Your task to perform on an android device: Open calendar and show me the first week of next month Image 0: 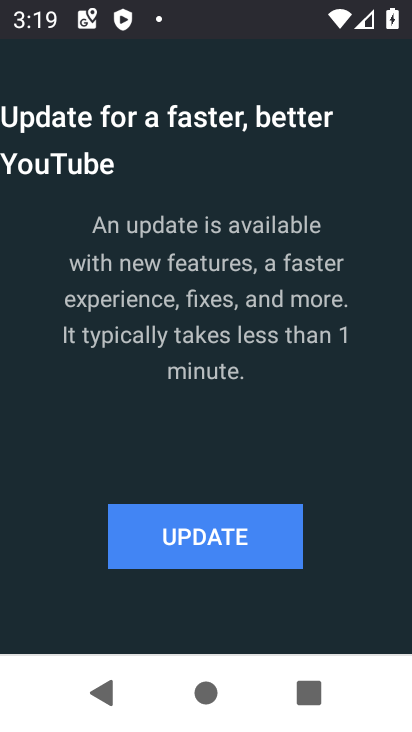
Step 0: press home button
Your task to perform on an android device: Open calendar and show me the first week of next month Image 1: 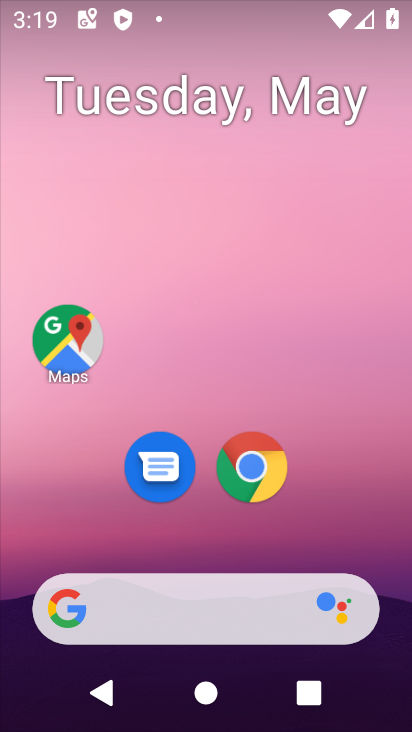
Step 1: press home button
Your task to perform on an android device: Open calendar and show me the first week of next month Image 2: 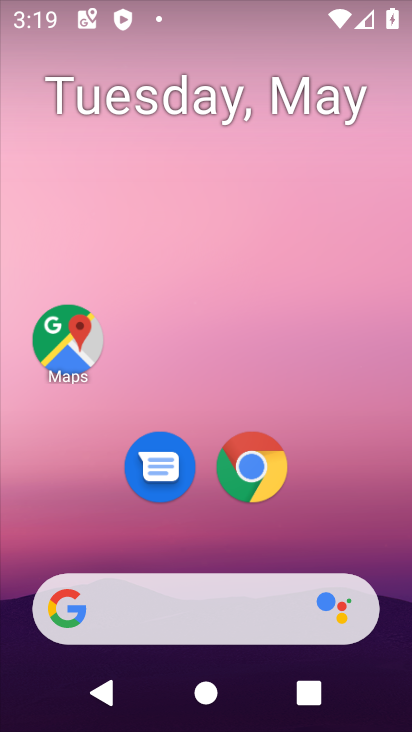
Step 2: drag from (361, 536) to (311, 46)
Your task to perform on an android device: Open calendar and show me the first week of next month Image 3: 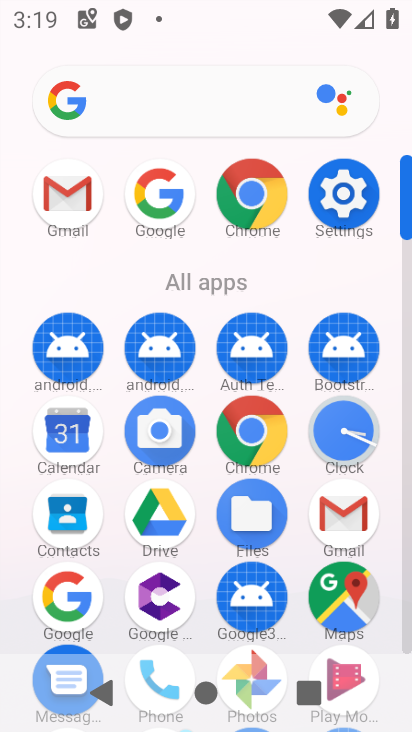
Step 3: click (71, 444)
Your task to perform on an android device: Open calendar and show me the first week of next month Image 4: 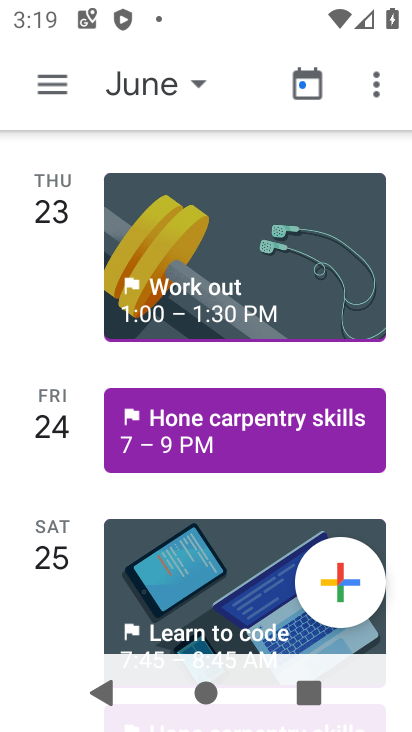
Step 4: click (62, 88)
Your task to perform on an android device: Open calendar and show me the first week of next month Image 5: 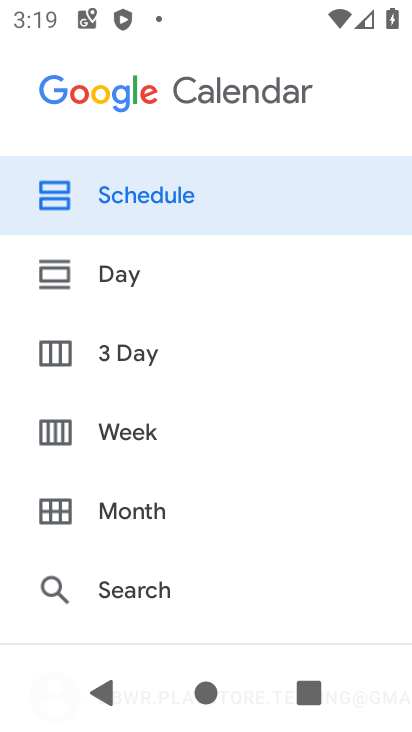
Step 5: click (125, 509)
Your task to perform on an android device: Open calendar and show me the first week of next month Image 6: 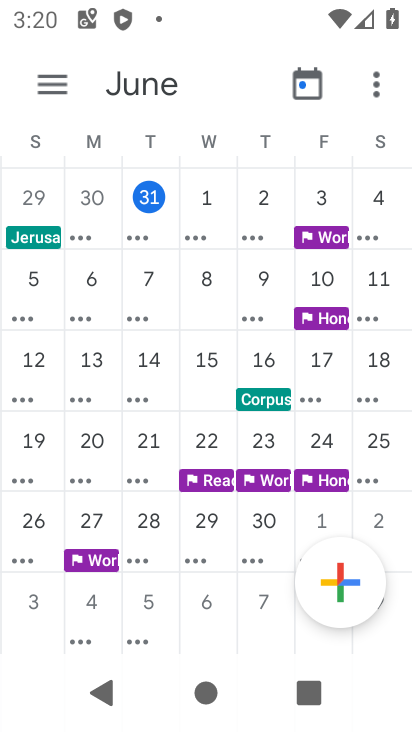
Step 6: click (206, 202)
Your task to perform on an android device: Open calendar and show me the first week of next month Image 7: 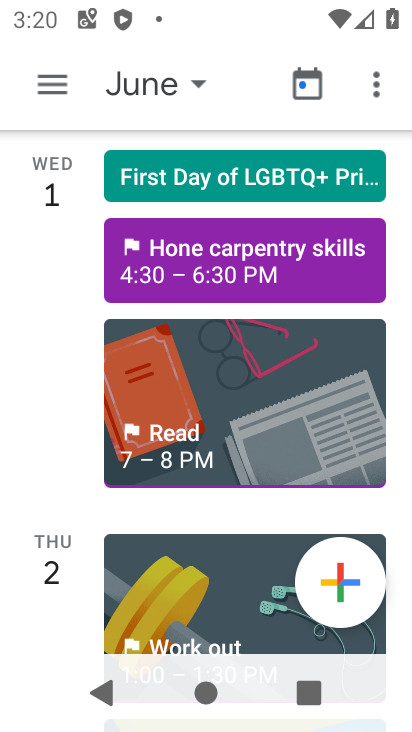
Step 7: task complete